Your task to perform on an android device: Go to Maps Image 0: 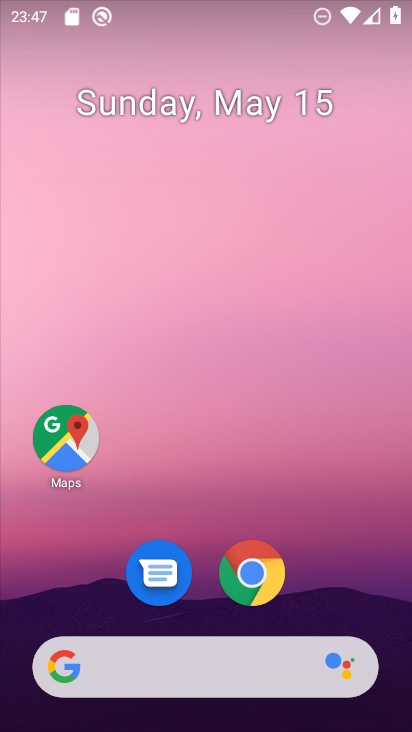
Step 0: press home button
Your task to perform on an android device: Go to Maps Image 1: 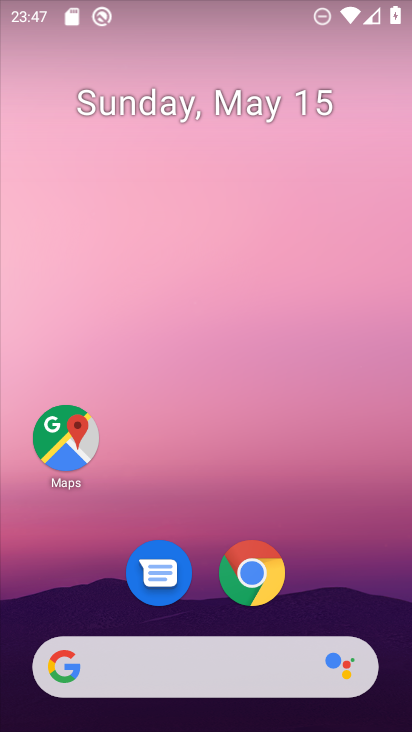
Step 1: click (75, 426)
Your task to perform on an android device: Go to Maps Image 2: 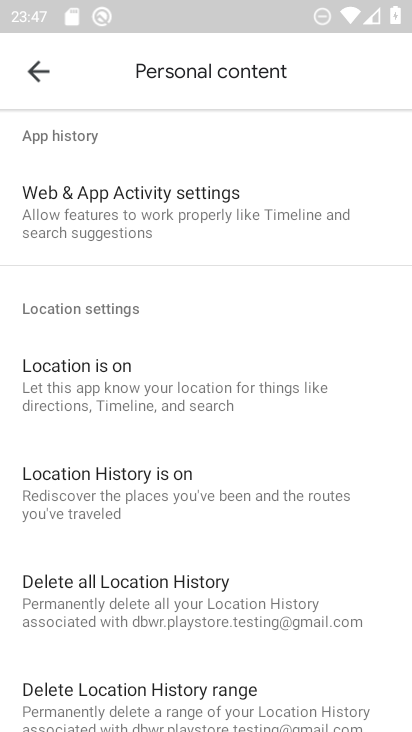
Step 2: task complete